Your task to perform on an android device: turn off javascript in the chrome app Image 0: 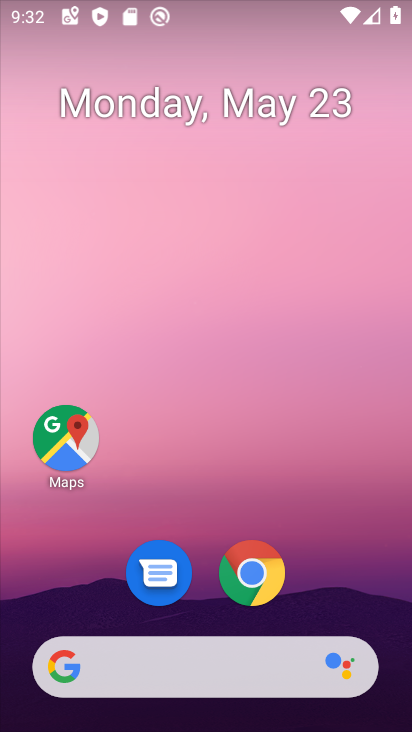
Step 0: drag from (381, 605) to (383, 286)
Your task to perform on an android device: turn off javascript in the chrome app Image 1: 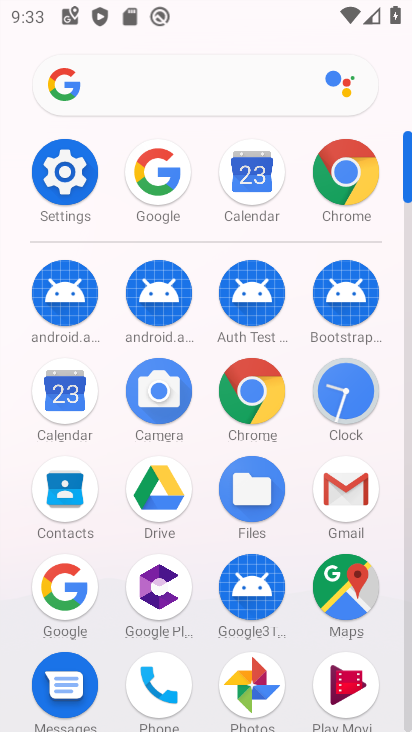
Step 1: click (265, 400)
Your task to perform on an android device: turn off javascript in the chrome app Image 2: 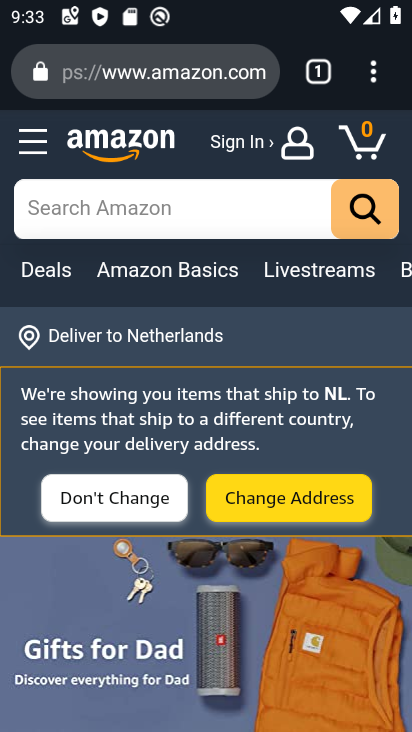
Step 2: click (375, 84)
Your task to perform on an android device: turn off javascript in the chrome app Image 3: 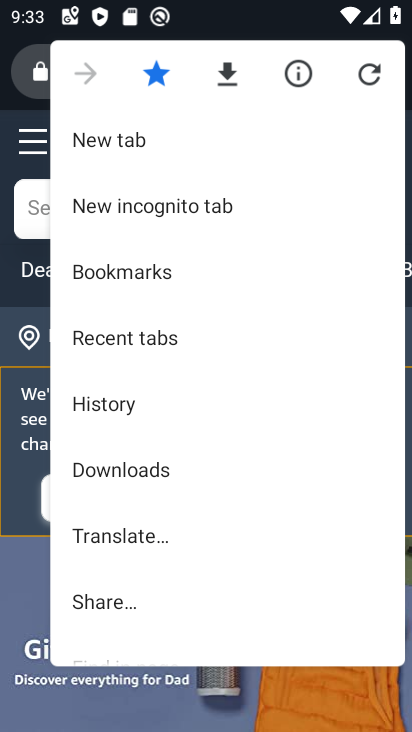
Step 3: drag from (337, 500) to (356, 368)
Your task to perform on an android device: turn off javascript in the chrome app Image 4: 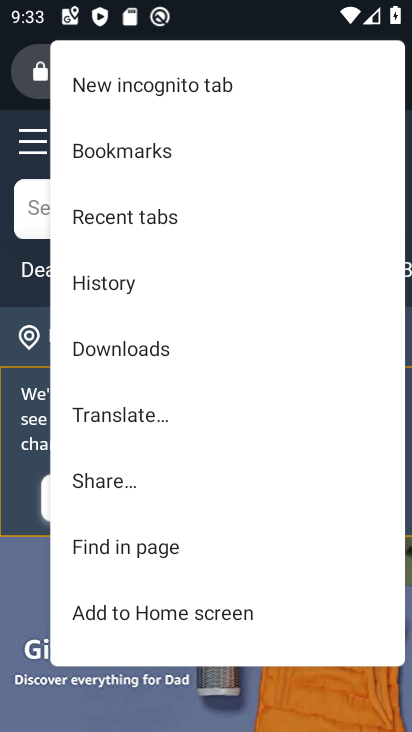
Step 4: drag from (350, 558) to (332, 422)
Your task to perform on an android device: turn off javascript in the chrome app Image 5: 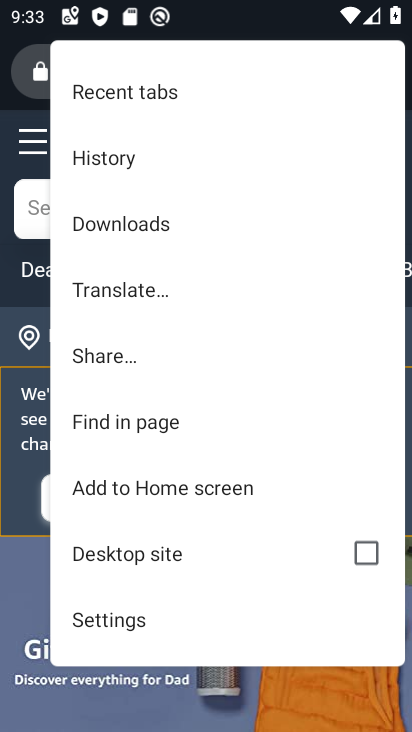
Step 5: drag from (296, 527) to (302, 480)
Your task to perform on an android device: turn off javascript in the chrome app Image 6: 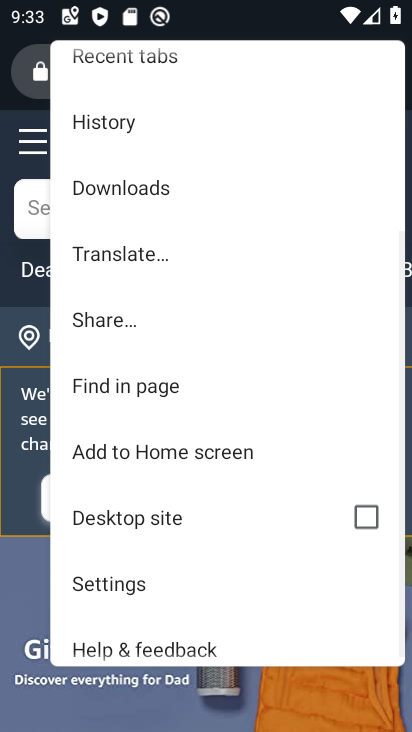
Step 6: drag from (266, 596) to (281, 534)
Your task to perform on an android device: turn off javascript in the chrome app Image 7: 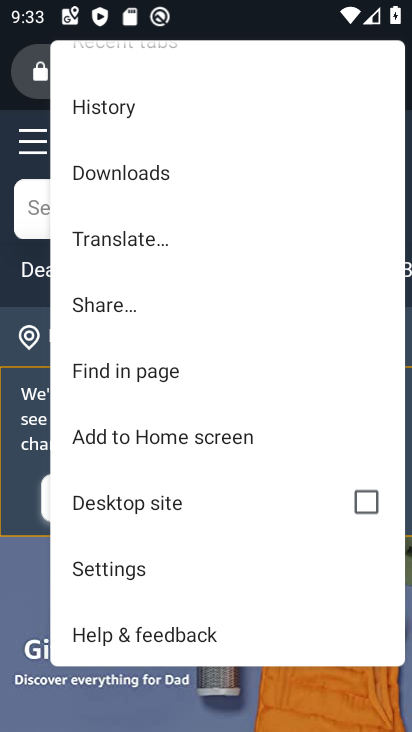
Step 7: click (156, 582)
Your task to perform on an android device: turn off javascript in the chrome app Image 8: 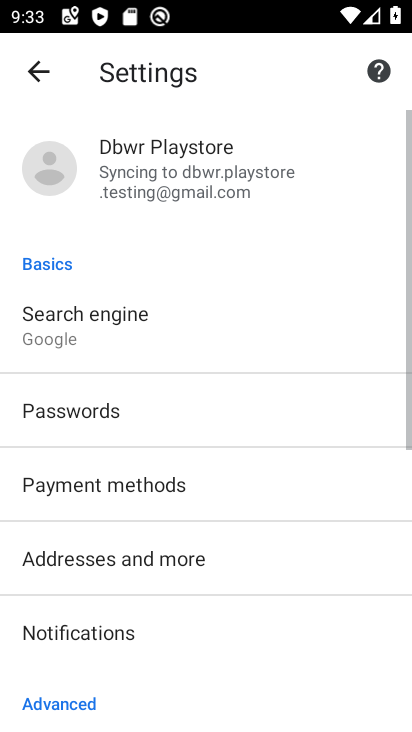
Step 8: drag from (292, 608) to (310, 534)
Your task to perform on an android device: turn off javascript in the chrome app Image 9: 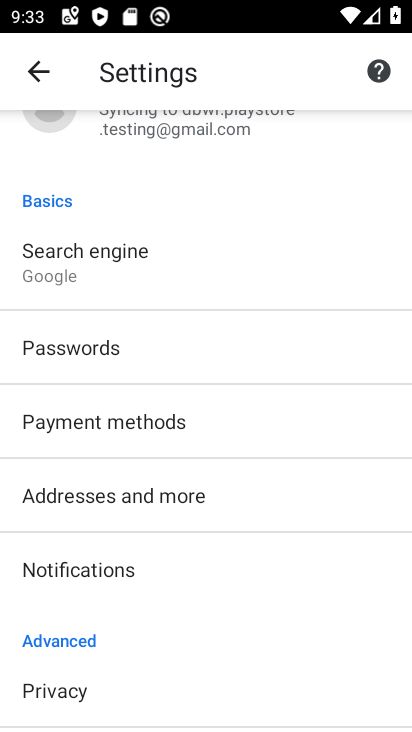
Step 9: drag from (316, 640) to (334, 571)
Your task to perform on an android device: turn off javascript in the chrome app Image 10: 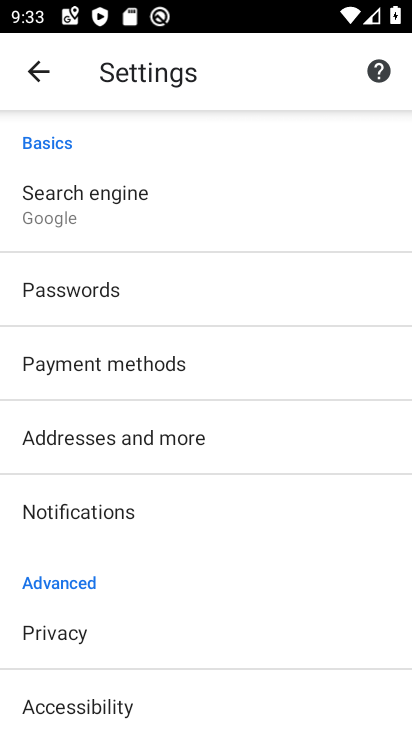
Step 10: drag from (336, 658) to (350, 582)
Your task to perform on an android device: turn off javascript in the chrome app Image 11: 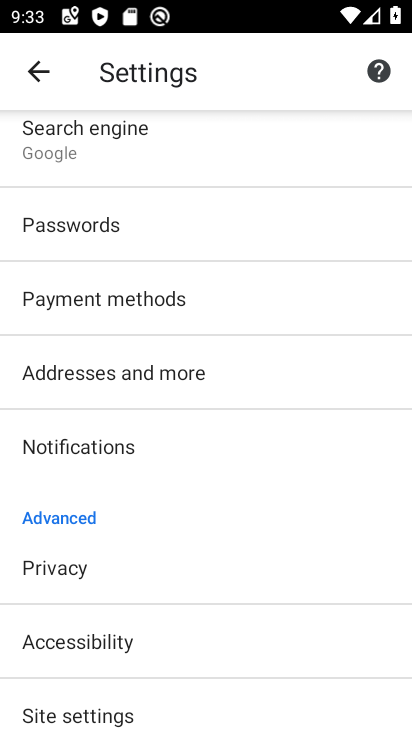
Step 11: drag from (344, 650) to (356, 596)
Your task to perform on an android device: turn off javascript in the chrome app Image 12: 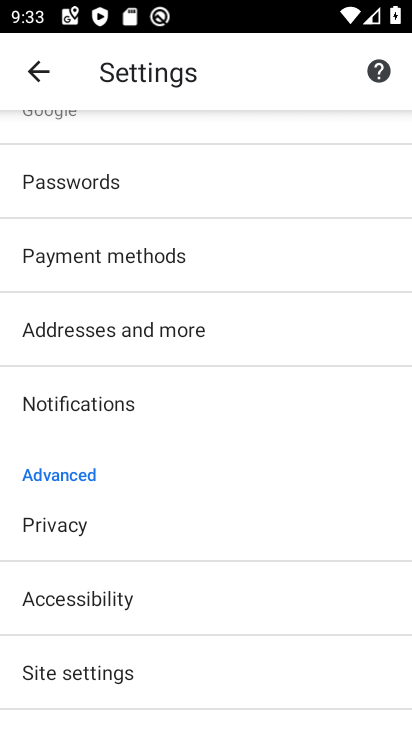
Step 12: drag from (347, 655) to (368, 594)
Your task to perform on an android device: turn off javascript in the chrome app Image 13: 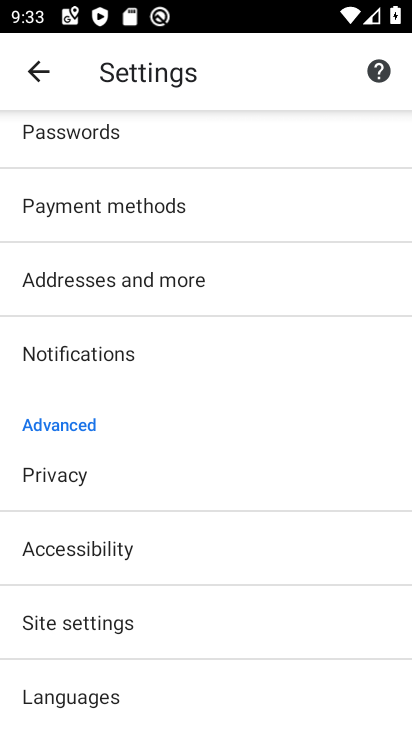
Step 13: drag from (376, 624) to (377, 542)
Your task to perform on an android device: turn off javascript in the chrome app Image 14: 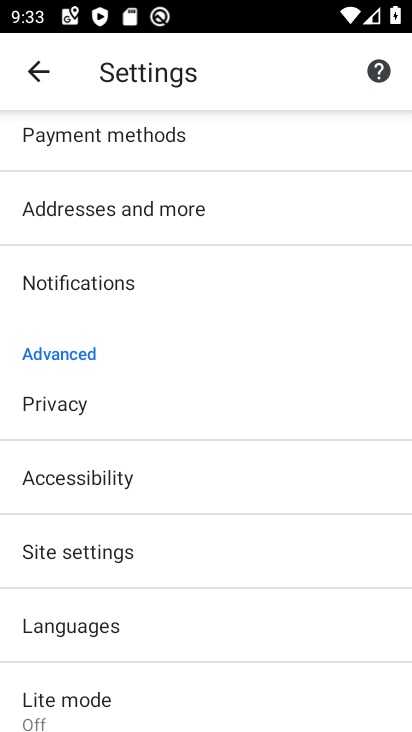
Step 14: drag from (358, 675) to (361, 581)
Your task to perform on an android device: turn off javascript in the chrome app Image 15: 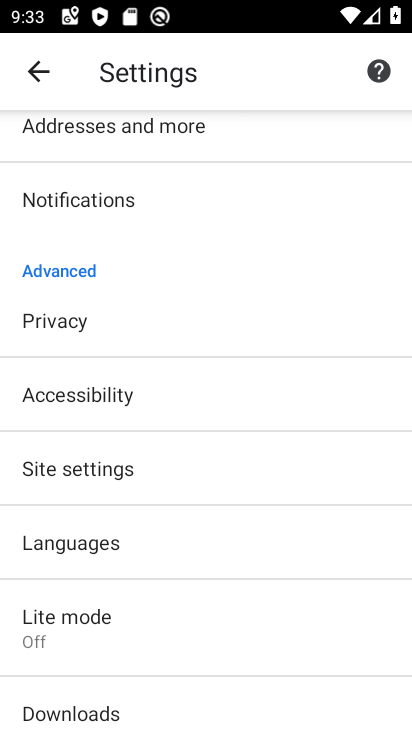
Step 15: drag from (349, 683) to (355, 567)
Your task to perform on an android device: turn off javascript in the chrome app Image 16: 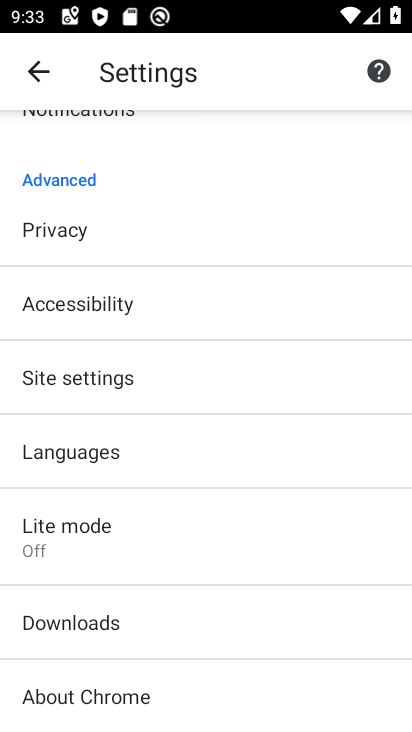
Step 16: click (261, 396)
Your task to perform on an android device: turn off javascript in the chrome app Image 17: 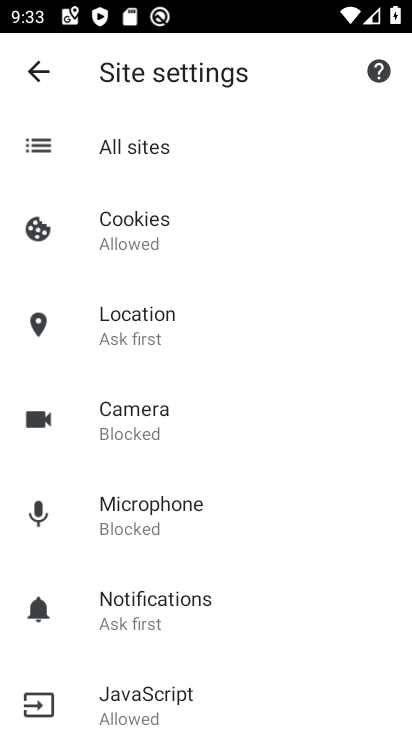
Step 17: drag from (319, 546) to (335, 478)
Your task to perform on an android device: turn off javascript in the chrome app Image 18: 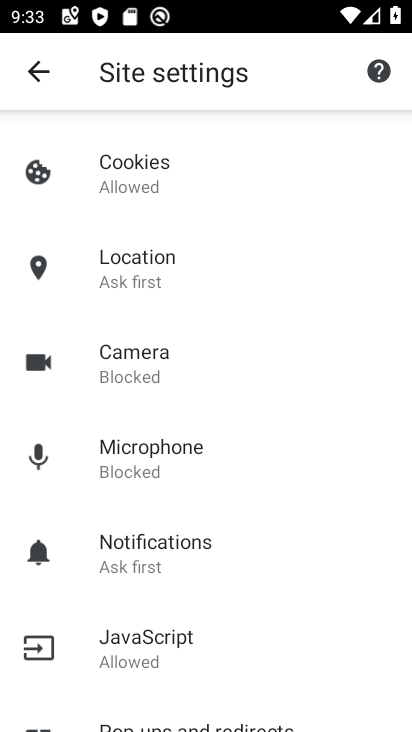
Step 18: drag from (324, 559) to (312, 481)
Your task to perform on an android device: turn off javascript in the chrome app Image 19: 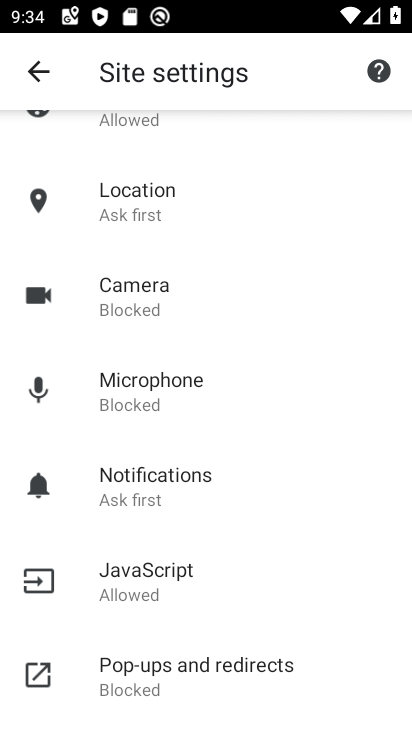
Step 19: drag from (352, 616) to (330, 530)
Your task to perform on an android device: turn off javascript in the chrome app Image 20: 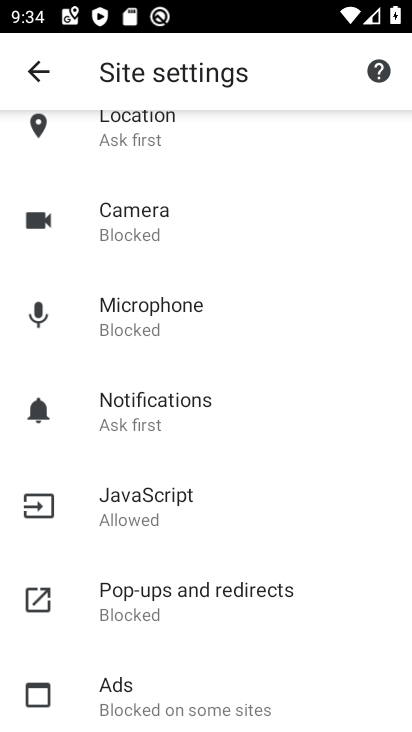
Step 20: drag from (310, 647) to (322, 534)
Your task to perform on an android device: turn off javascript in the chrome app Image 21: 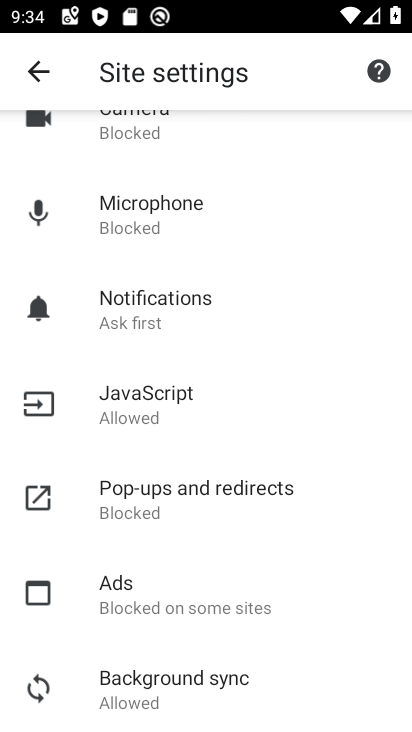
Step 21: drag from (327, 647) to (325, 559)
Your task to perform on an android device: turn off javascript in the chrome app Image 22: 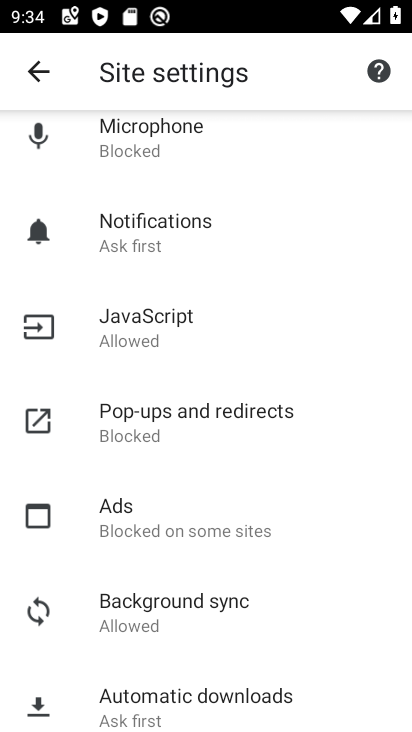
Step 22: click (180, 333)
Your task to perform on an android device: turn off javascript in the chrome app Image 23: 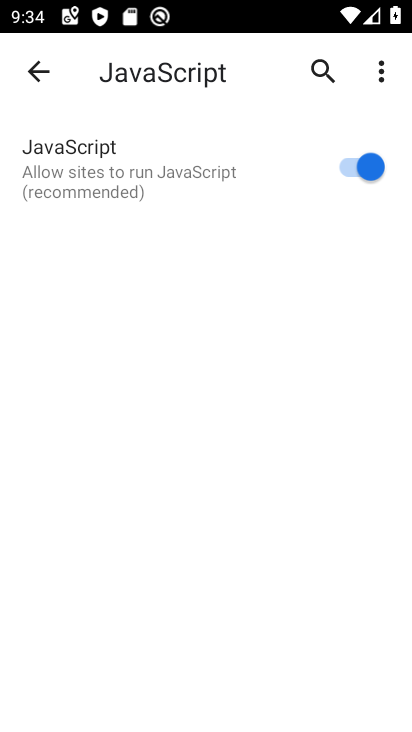
Step 23: click (361, 162)
Your task to perform on an android device: turn off javascript in the chrome app Image 24: 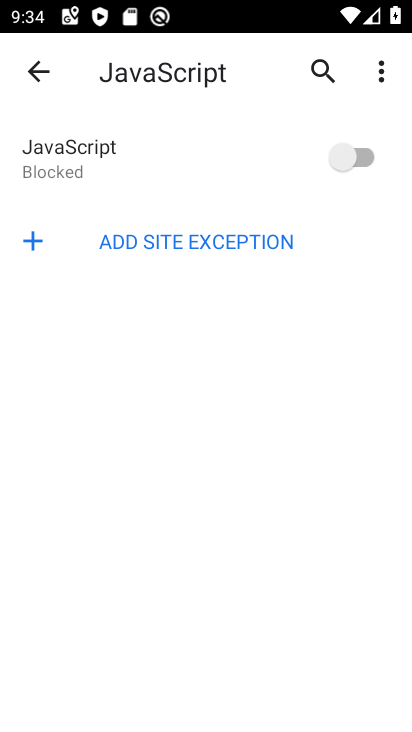
Step 24: task complete